Your task to perform on an android device: turn on data saver in the chrome app Image 0: 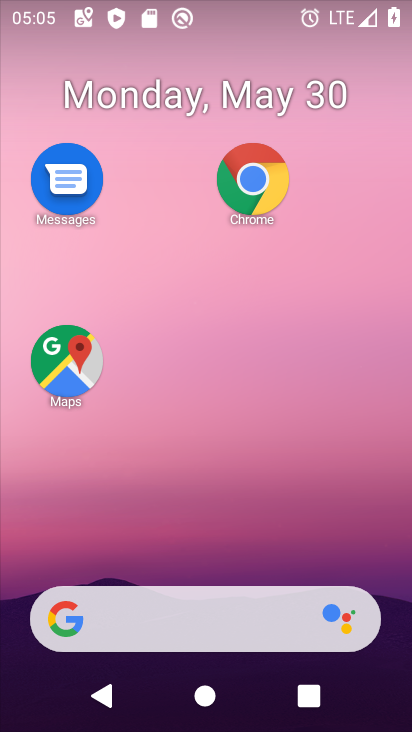
Step 0: click (248, 177)
Your task to perform on an android device: turn on data saver in the chrome app Image 1: 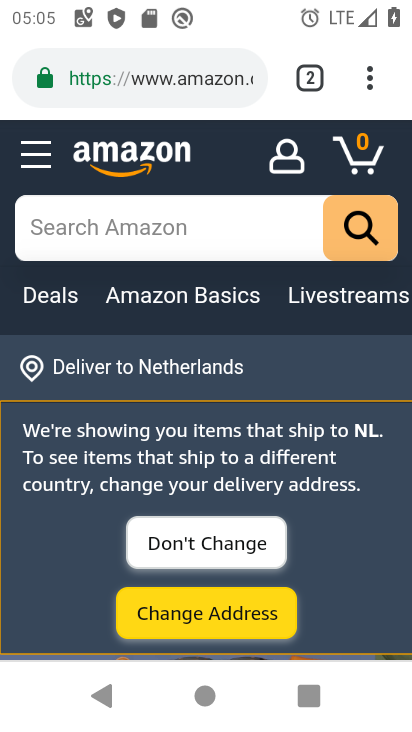
Step 1: click (372, 92)
Your task to perform on an android device: turn on data saver in the chrome app Image 2: 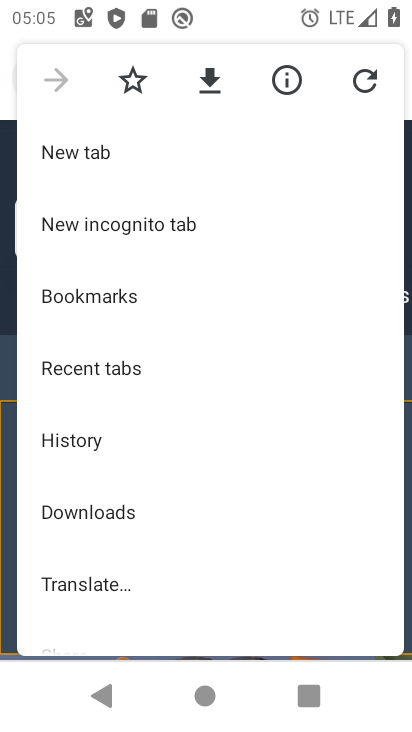
Step 2: drag from (129, 569) to (118, 226)
Your task to perform on an android device: turn on data saver in the chrome app Image 3: 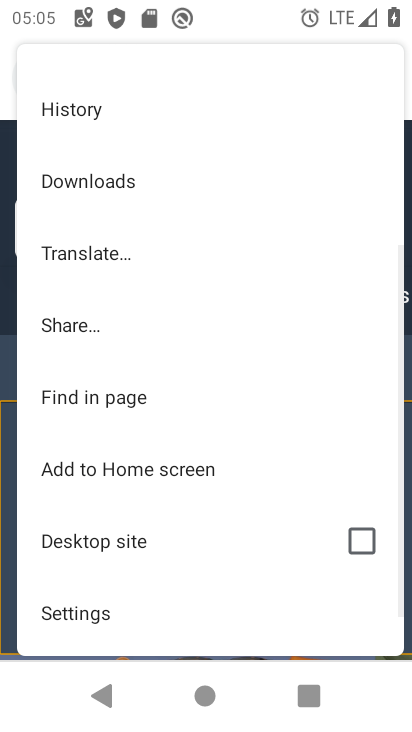
Step 3: click (86, 616)
Your task to perform on an android device: turn on data saver in the chrome app Image 4: 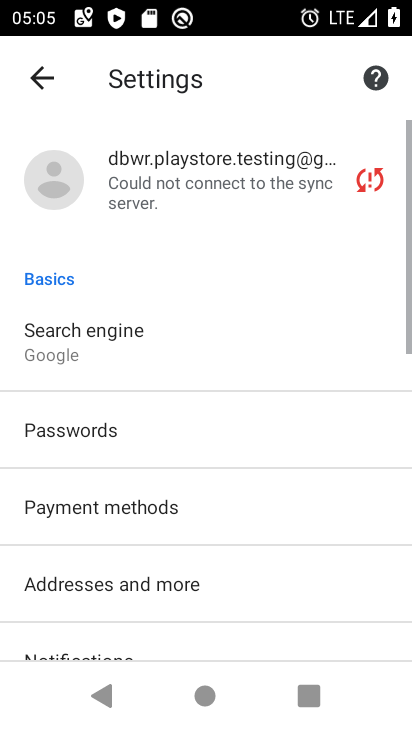
Step 4: drag from (144, 603) to (154, 176)
Your task to perform on an android device: turn on data saver in the chrome app Image 5: 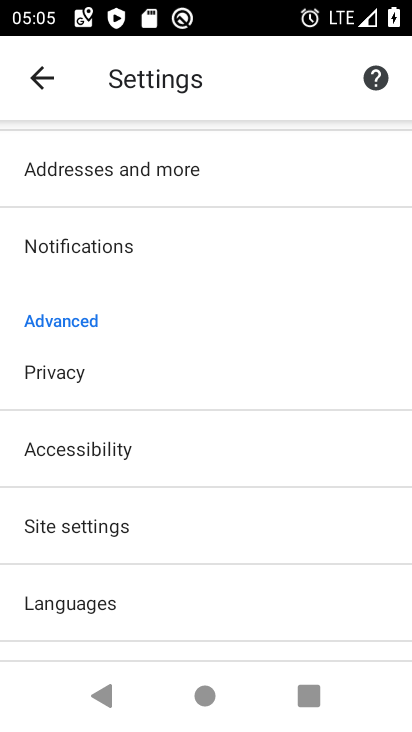
Step 5: drag from (101, 594) to (99, 330)
Your task to perform on an android device: turn on data saver in the chrome app Image 6: 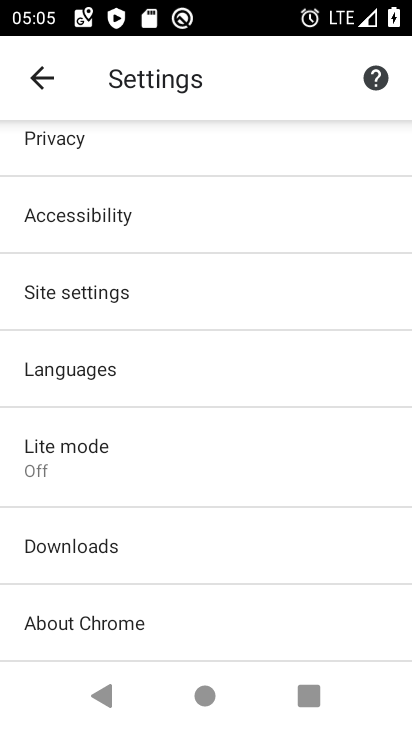
Step 6: drag from (98, 591) to (135, 317)
Your task to perform on an android device: turn on data saver in the chrome app Image 7: 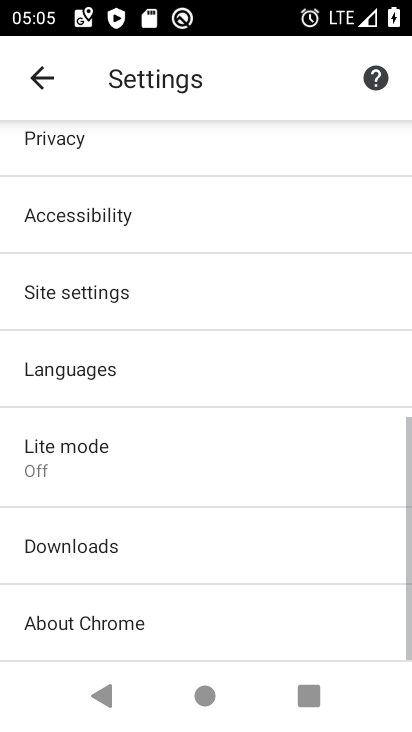
Step 7: click (69, 454)
Your task to perform on an android device: turn on data saver in the chrome app Image 8: 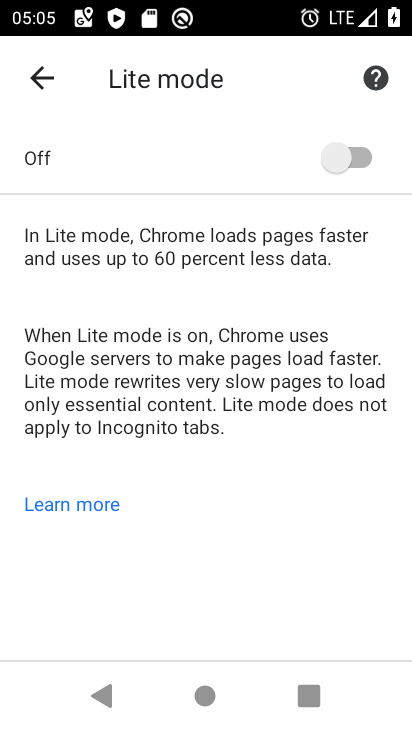
Step 8: click (350, 161)
Your task to perform on an android device: turn on data saver in the chrome app Image 9: 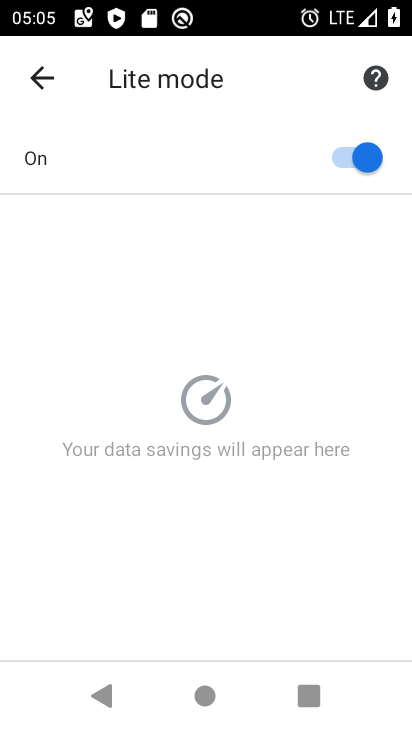
Step 9: task complete